Your task to perform on an android device: turn off wifi Image 0: 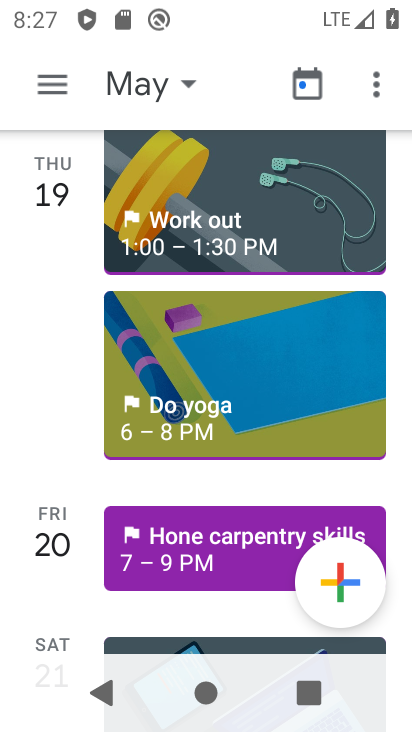
Step 0: press back button
Your task to perform on an android device: turn off wifi Image 1: 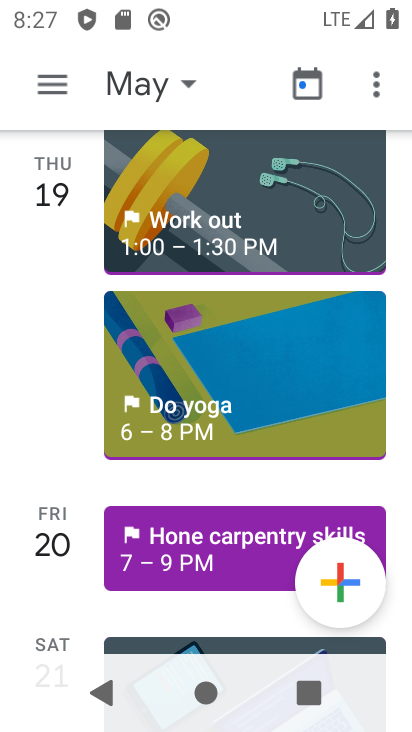
Step 1: press back button
Your task to perform on an android device: turn off wifi Image 2: 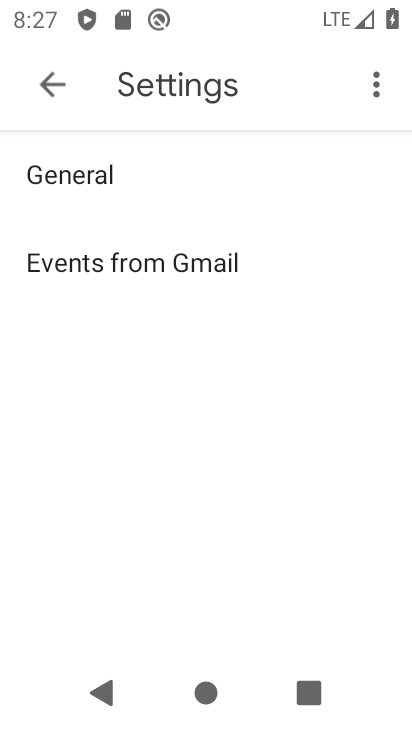
Step 2: press back button
Your task to perform on an android device: turn off wifi Image 3: 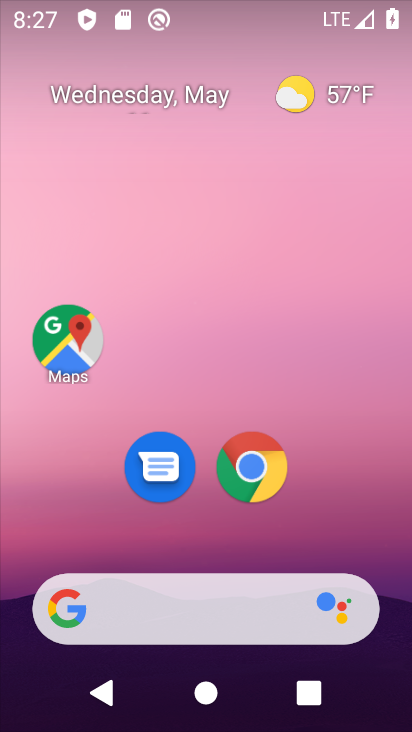
Step 3: drag from (389, 576) to (17, 8)
Your task to perform on an android device: turn off wifi Image 4: 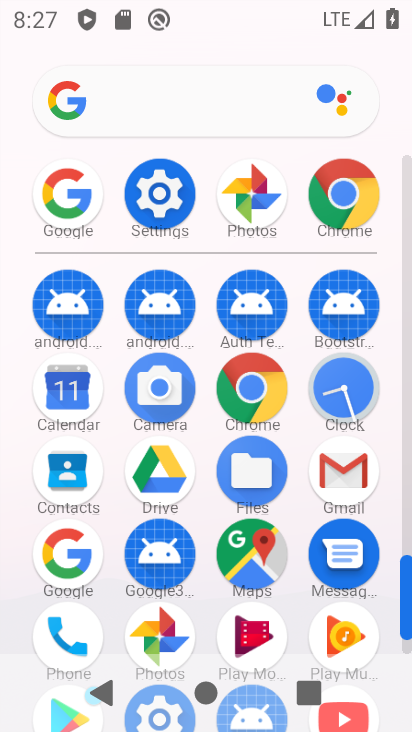
Step 4: click (150, 197)
Your task to perform on an android device: turn off wifi Image 5: 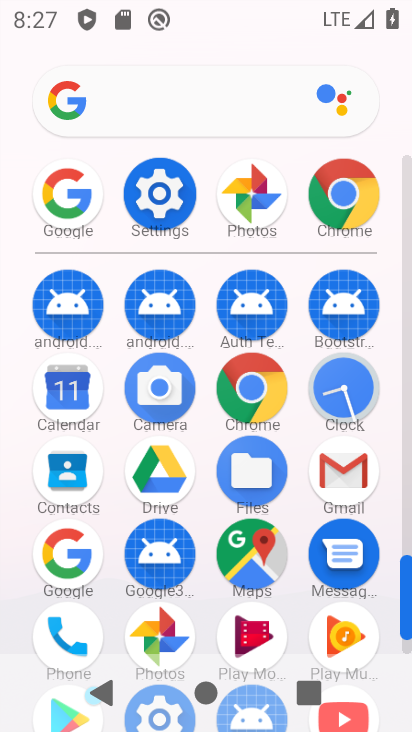
Step 5: click (150, 197)
Your task to perform on an android device: turn off wifi Image 6: 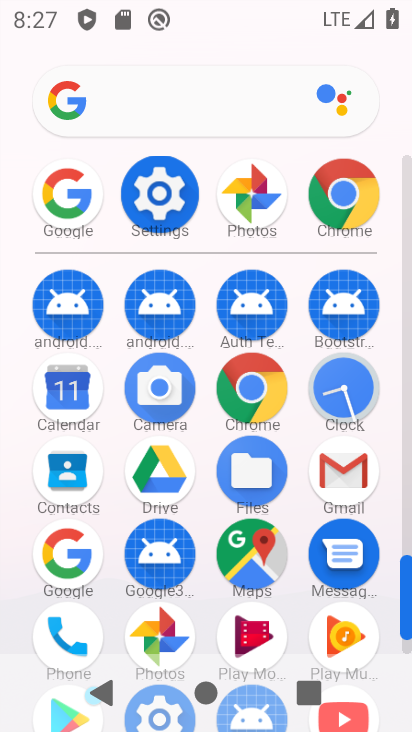
Step 6: click (150, 197)
Your task to perform on an android device: turn off wifi Image 7: 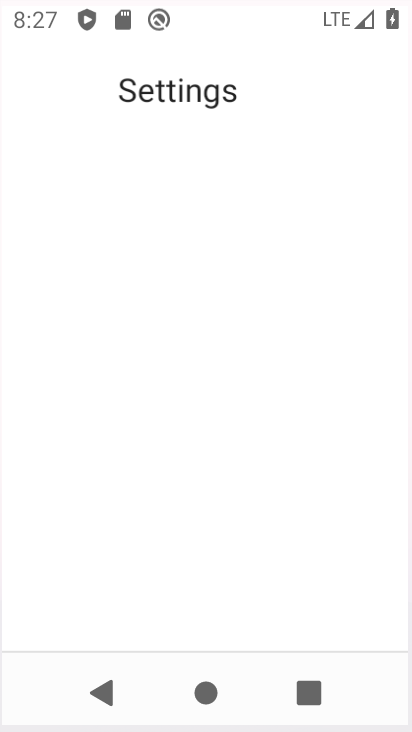
Step 7: click (150, 197)
Your task to perform on an android device: turn off wifi Image 8: 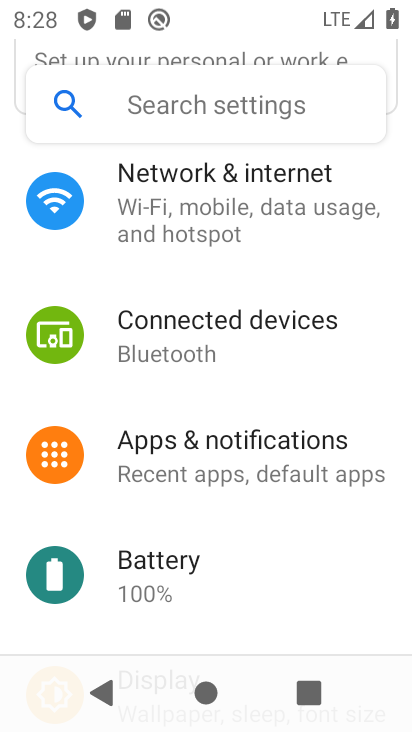
Step 8: drag from (183, 229) to (190, 558)
Your task to perform on an android device: turn off wifi Image 9: 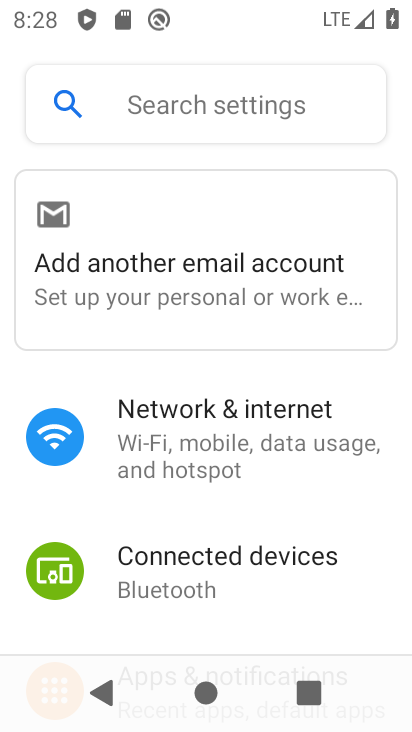
Step 9: drag from (217, 285) to (197, 582)
Your task to perform on an android device: turn off wifi Image 10: 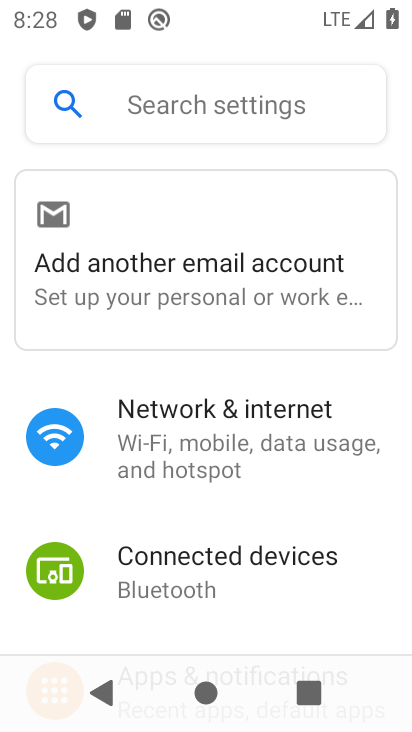
Step 10: click (187, 439)
Your task to perform on an android device: turn off wifi Image 11: 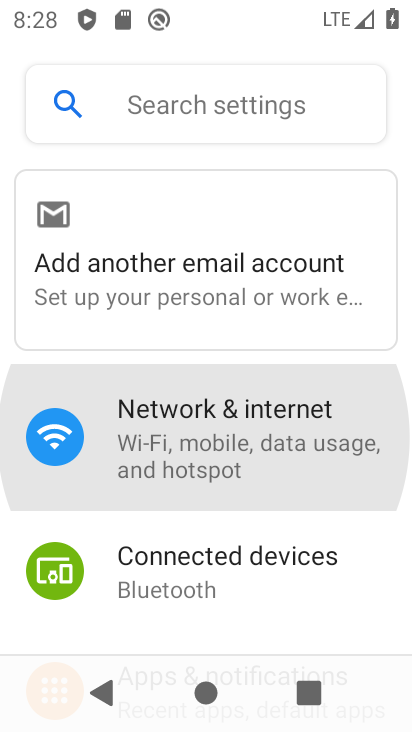
Step 11: click (187, 439)
Your task to perform on an android device: turn off wifi Image 12: 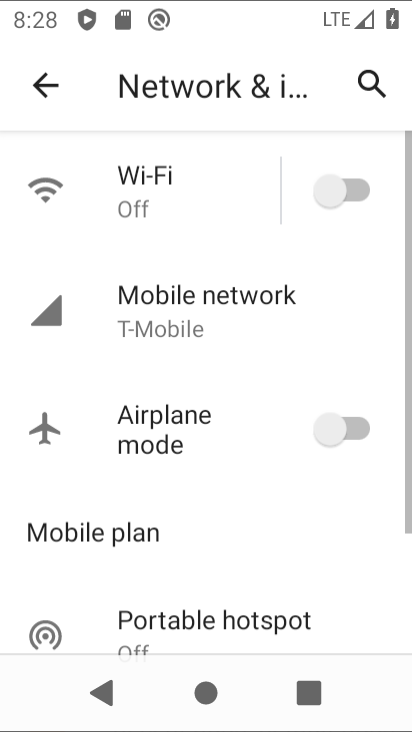
Step 12: click (188, 439)
Your task to perform on an android device: turn off wifi Image 13: 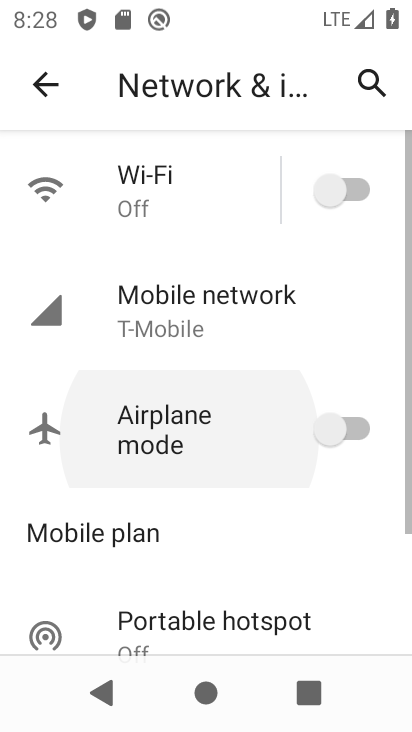
Step 13: click (188, 439)
Your task to perform on an android device: turn off wifi Image 14: 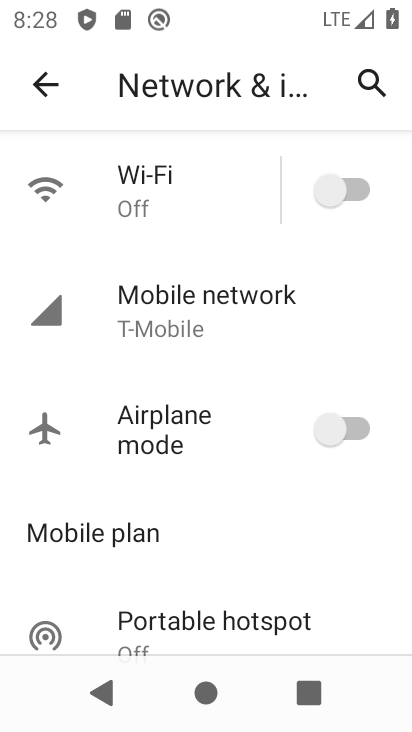
Step 14: click (329, 187)
Your task to perform on an android device: turn off wifi Image 15: 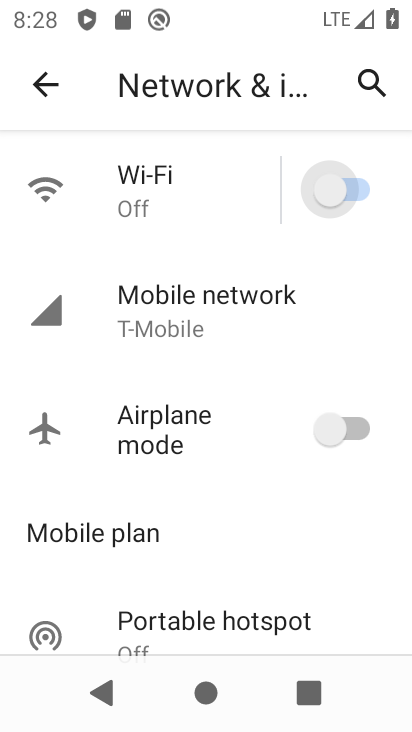
Step 15: click (326, 180)
Your task to perform on an android device: turn off wifi Image 16: 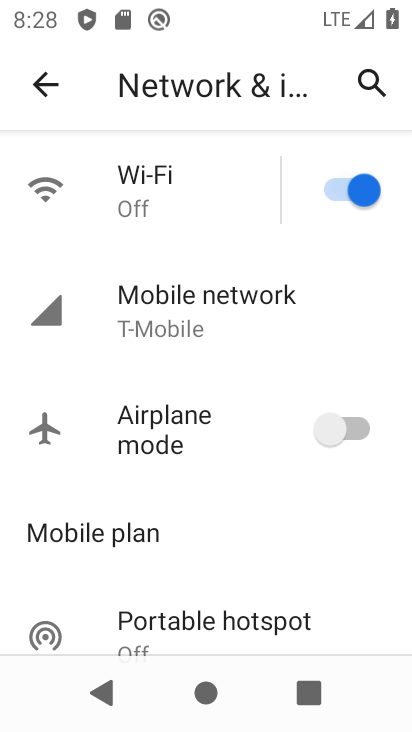
Step 16: click (327, 180)
Your task to perform on an android device: turn off wifi Image 17: 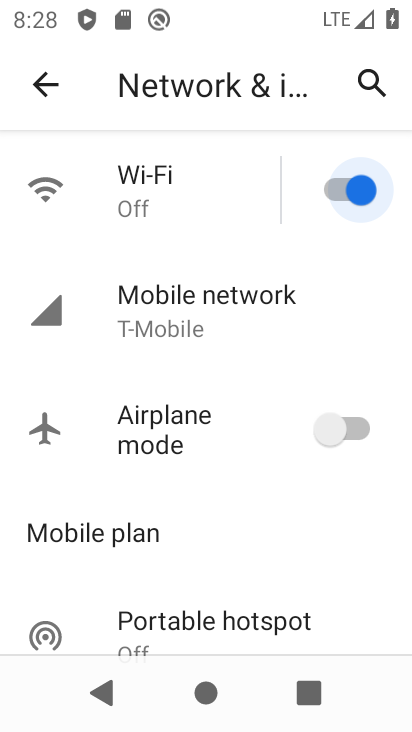
Step 17: click (334, 180)
Your task to perform on an android device: turn off wifi Image 18: 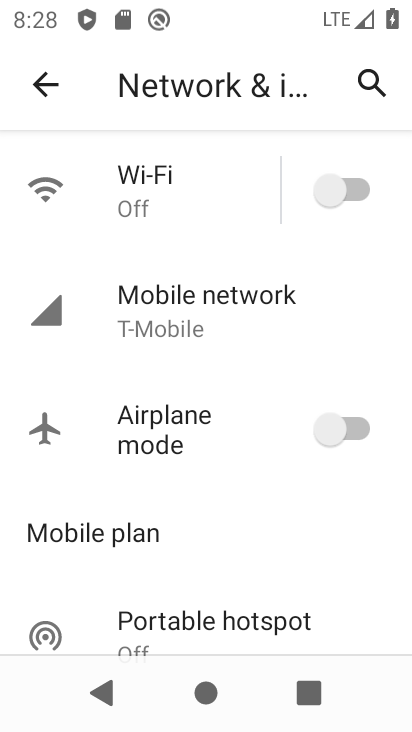
Step 18: task complete